Your task to perform on an android device: change alarm snooze length Image 0: 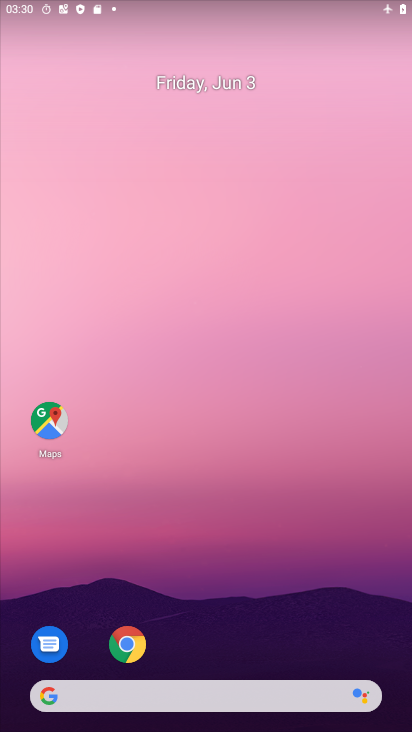
Step 0: drag from (208, 650) to (282, 194)
Your task to perform on an android device: change alarm snooze length Image 1: 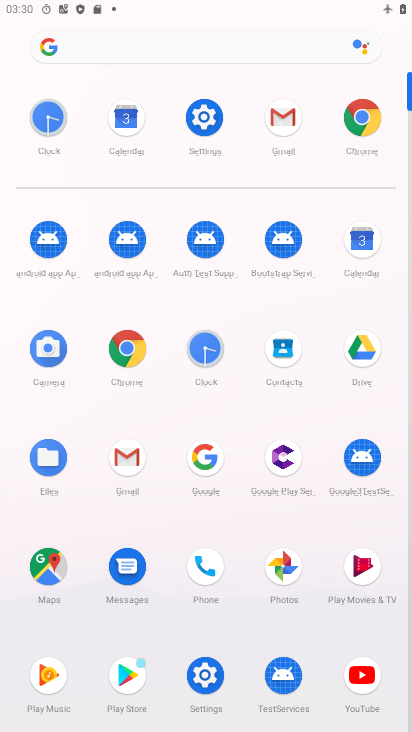
Step 1: click (63, 116)
Your task to perform on an android device: change alarm snooze length Image 2: 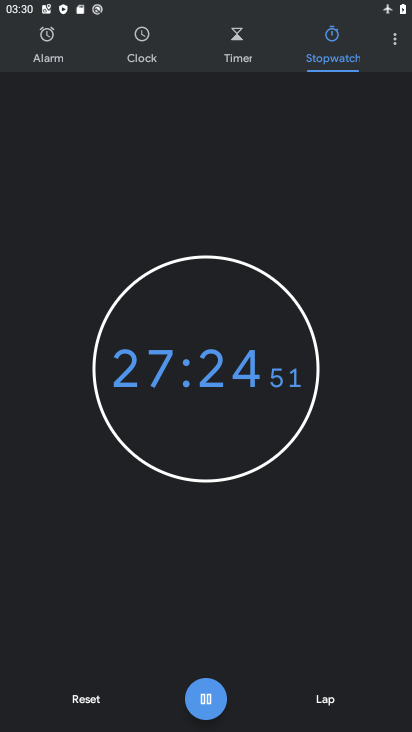
Step 2: click (395, 42)
Your task to perform on an android device: change alarm snooze length Image 3: 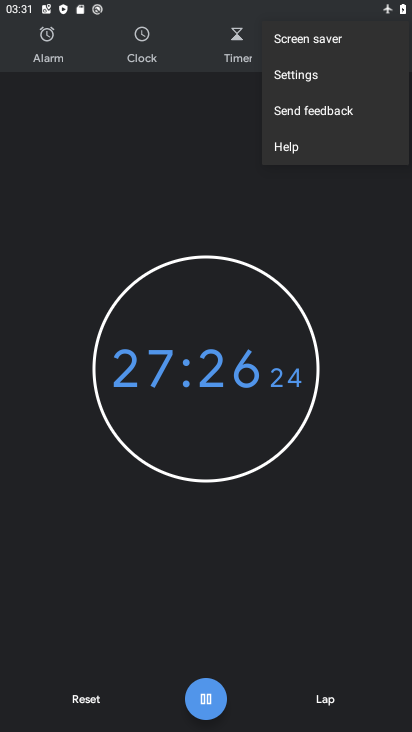
Step 3: click (315, 76)
Your task to perform on an android device: change alarm snooze length Image 4: 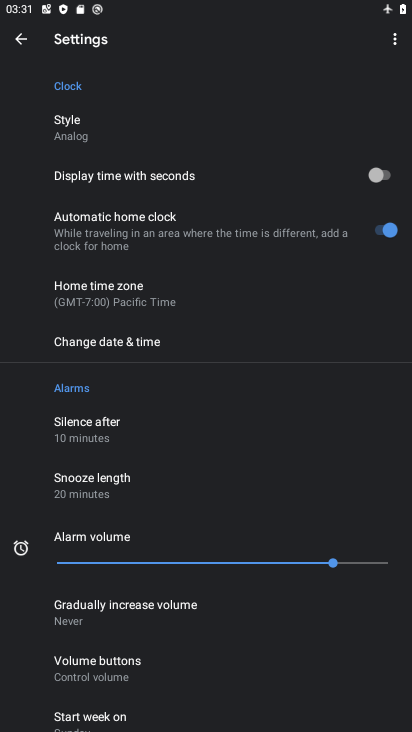
Step 4: click (125, 481)
Your task to perform on an android device: change alarm snooze length Image 5: 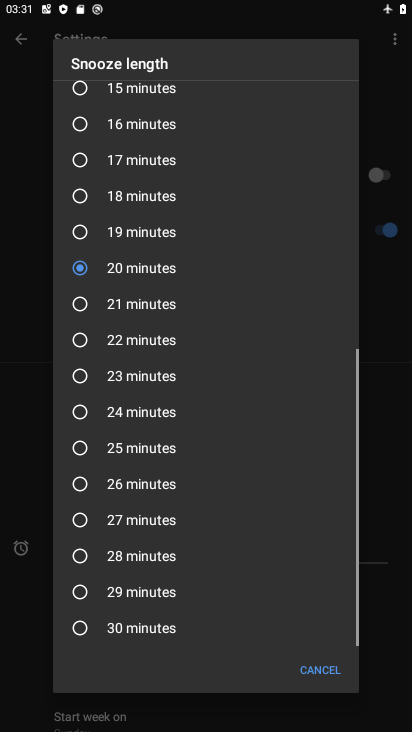
Step 5: click (138, 500)
Your task to perform on an android device: change alarm snooze length Image 6: 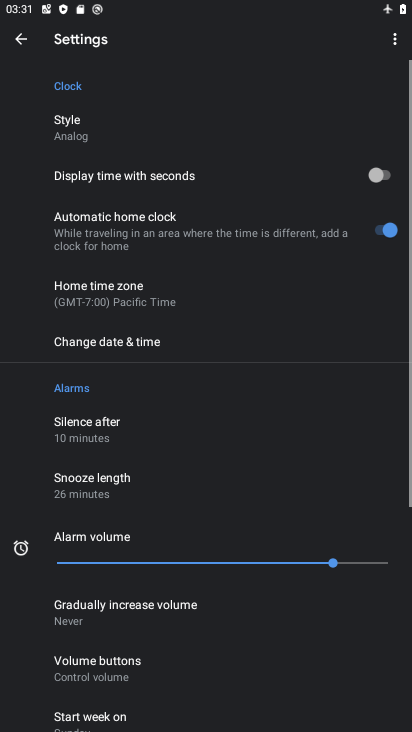
Step 6: task complete